Your task to perform on an android device: turn off translation in the chrome app Image 0: 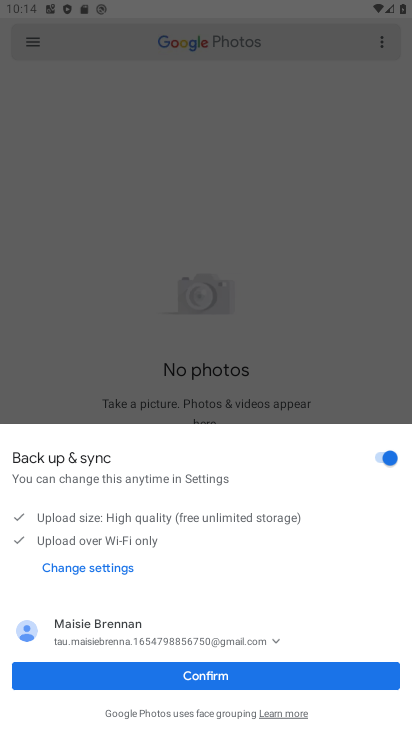
Step 0: press home button
Your task to perform on an android device: turn off translation in the chrome app Image 1: 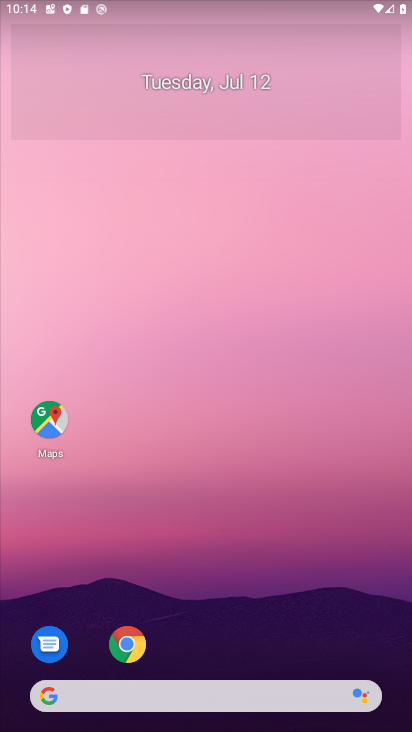
Step 1: click (123, 636)
Your task to perform on an android device: turn off translation in the chrome app Image 2: 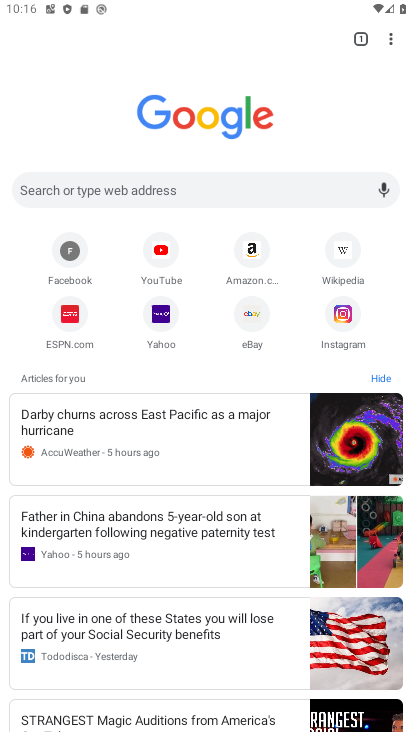
Step 2: click (390, 43)
Your task to perform on an android device: turn off translation in the chrome app Image 3: 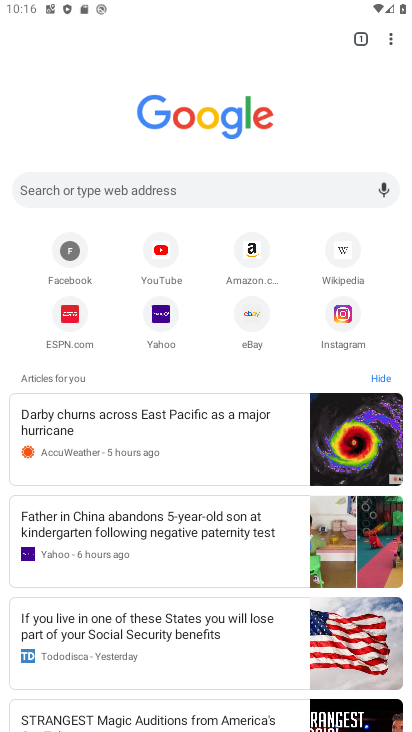
Step 3: click (384, 34)
Your task to perform on an android device: turn off translation in the chrome app Image 4: 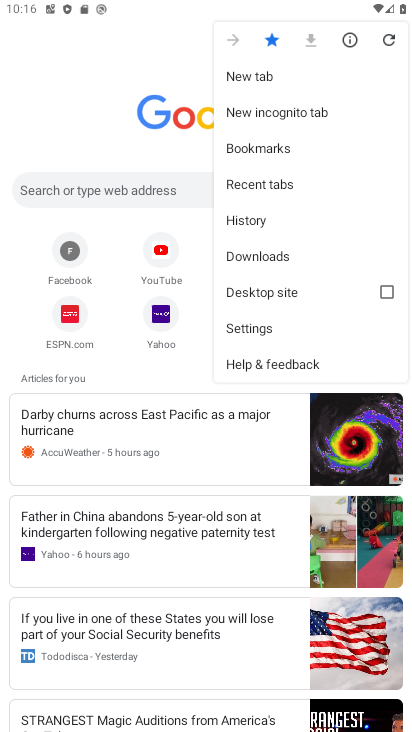
Step 4: click (271, 331)
Your task to perform on an android device: turn off translation in the chrome app Image 5: 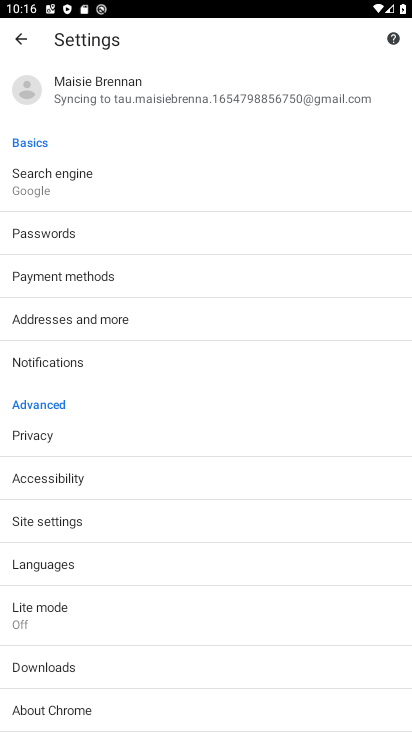
Step 5: click (68, 565)
Your task to perform on an android device: turn off translation in the chrome app Image 6: 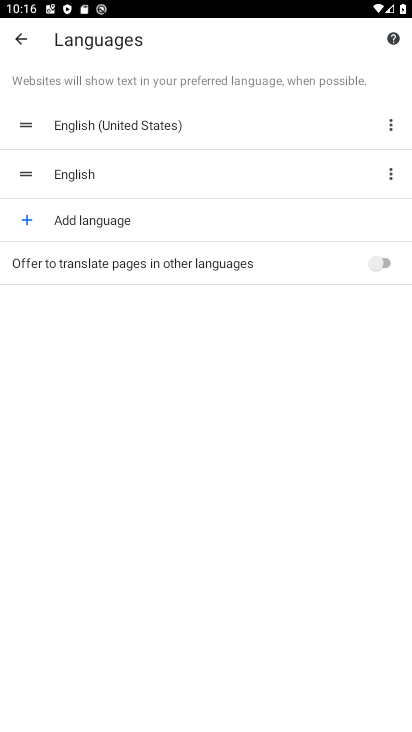
Step 6: task complete